Your task to perform on an android device: When is my next meeting? Image 0: 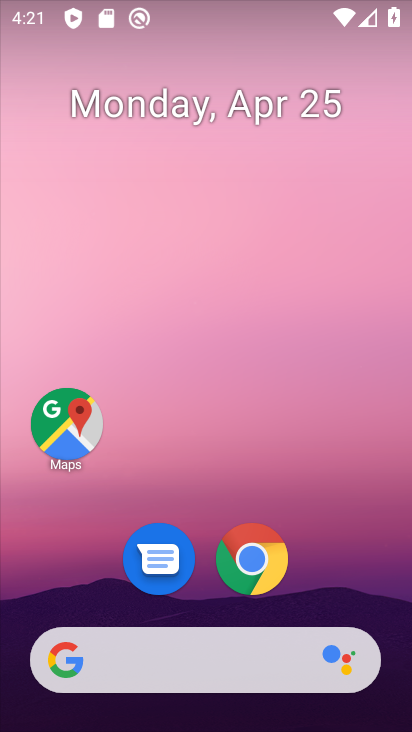
Step 0: click (231, 96)
Your task to perform on an android device: When is my next meeting? Image 1: 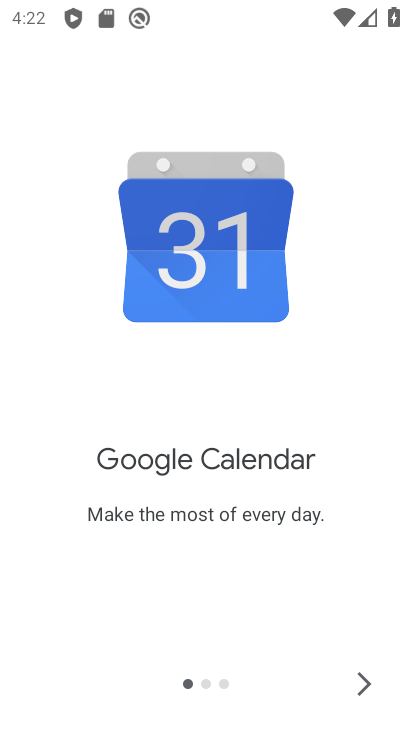
Step 1: click (365, 677)
Your task to perform on an android device: When is my next meeting? Image 2: 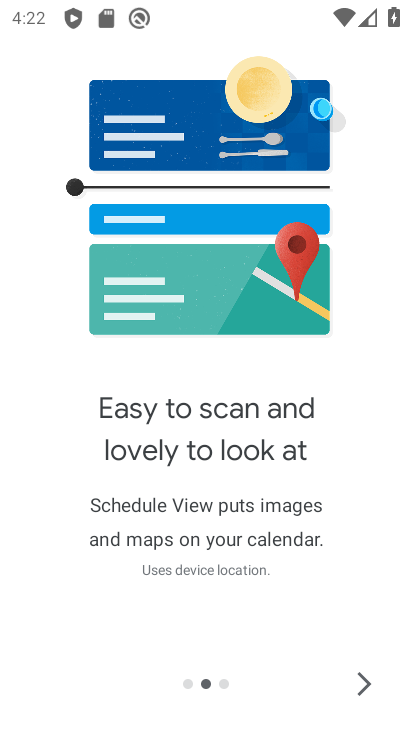
Step 2: click (365, 677)
Your task to perform on an android device: When is my next meeting? Image 3: 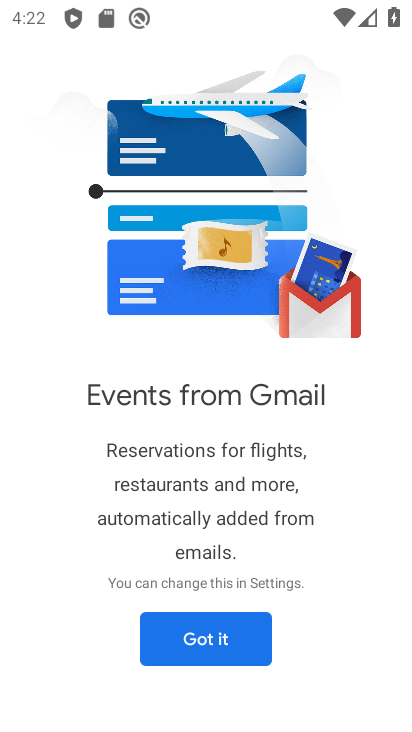
Step 3: click (250, 625)
Your task to perform on an android device: When is my next meeting? Image 4: 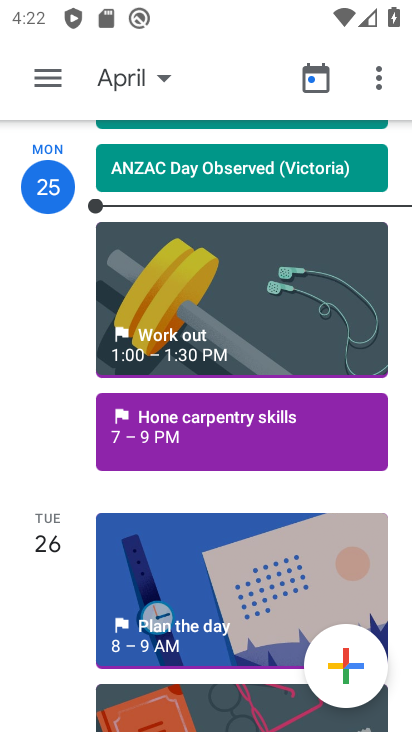
Step 4: task complete